Your task to perform on an android device: Open Google Chrome and open the bookmarks view Image 0: 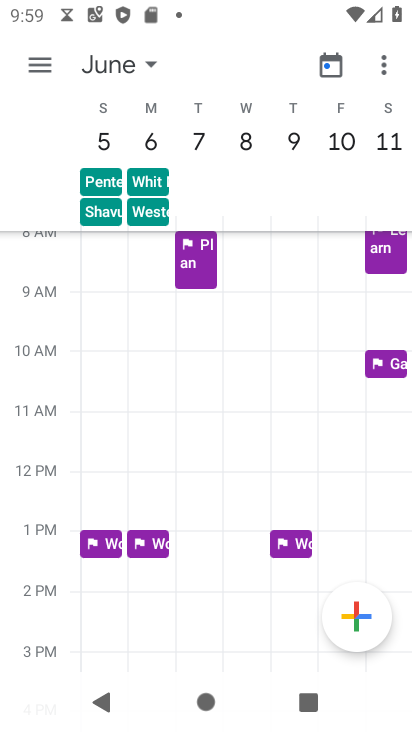
Step 0: press home button
Your task to perform on an android device: Open Google Chrome and open the bookmarks view Image 1: 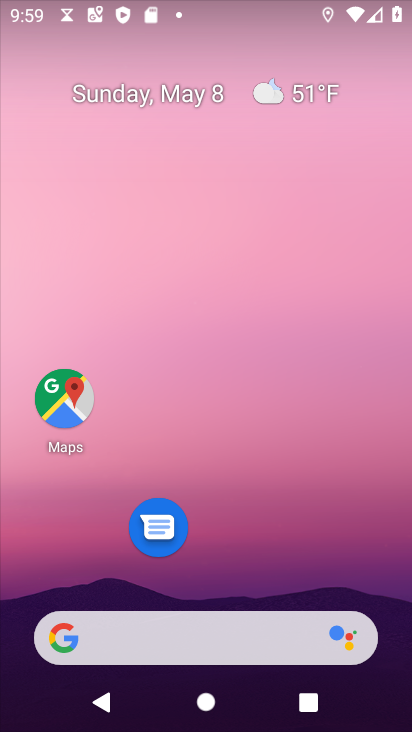
Step 1: drag from (255, 533) to (196, 0)
Your task to perform on an android device: Open Google Chrome and open the bookmarks view Image 2: 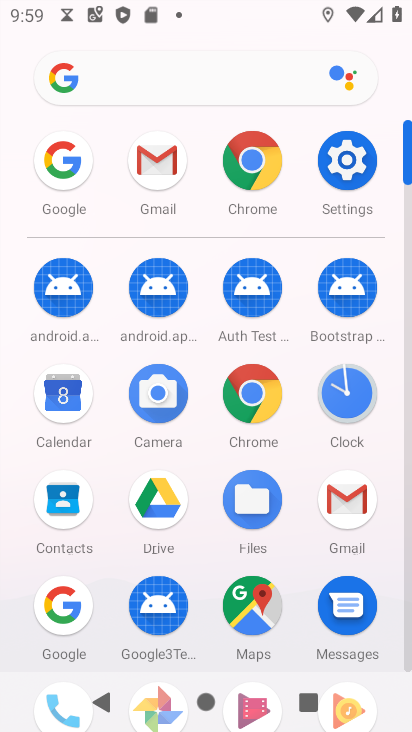
Step 2: click (253, 162)
Your task to perform on an android device: Open Google Chrome and open the bookmarks view Image 3: 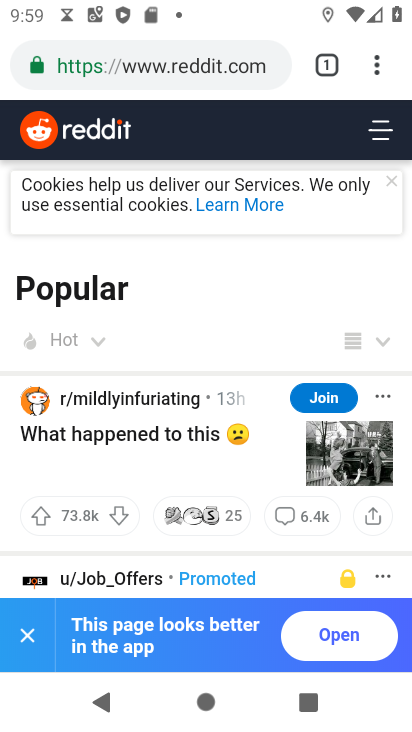
Step 3: click (379, 61)
Your task to perform on an android device: Open Google Chrome and open the bookmarks view Image 4: 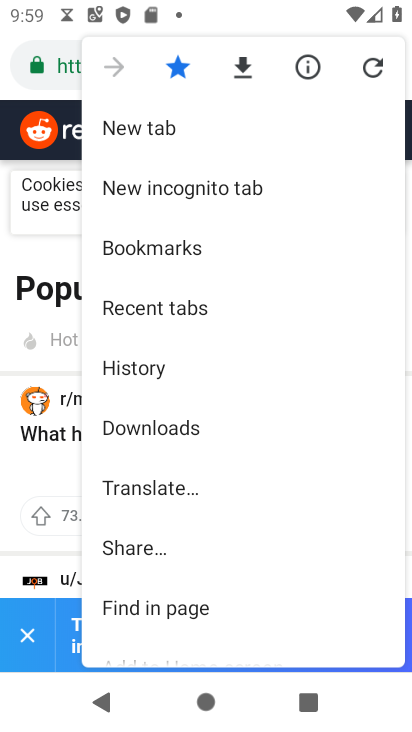
Step 4: click (181, 249)
Your task to perform on an android device: Open Google Chrome and open the bookmarks view Image 5: 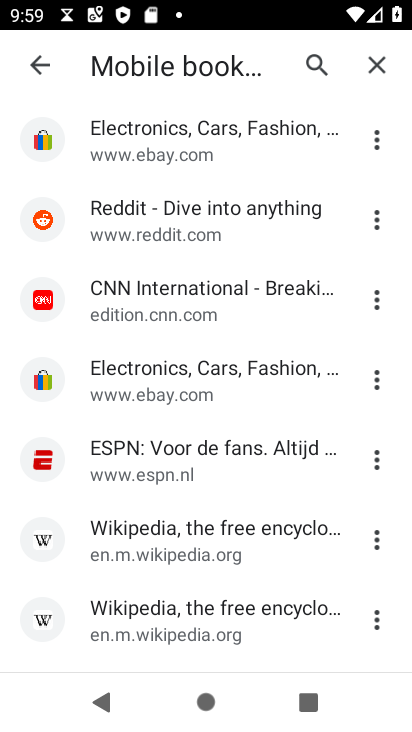
Step 5: click (151, 298)
Your task to perform on an android device: Open Google Chrome and open the bookmarks view Image 6: 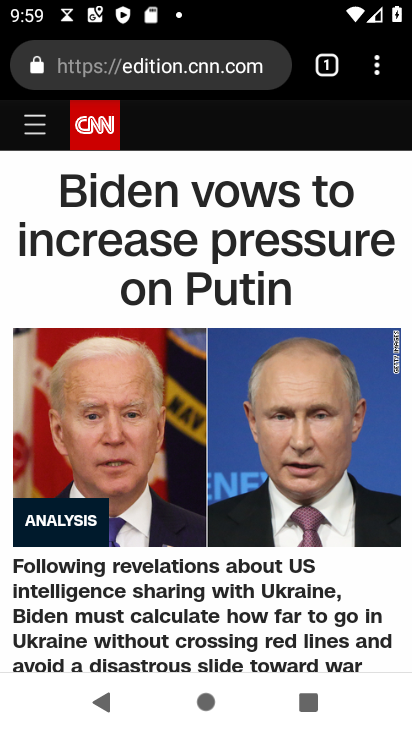
Step 6: task complete